Your task to perform on an android device: turn off location Image 0: 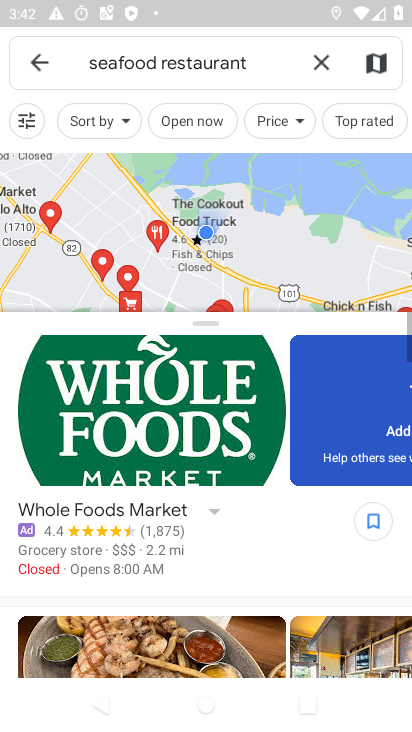
Step 0: press home button
Your task to perform on an android device: turn off location Image 1: 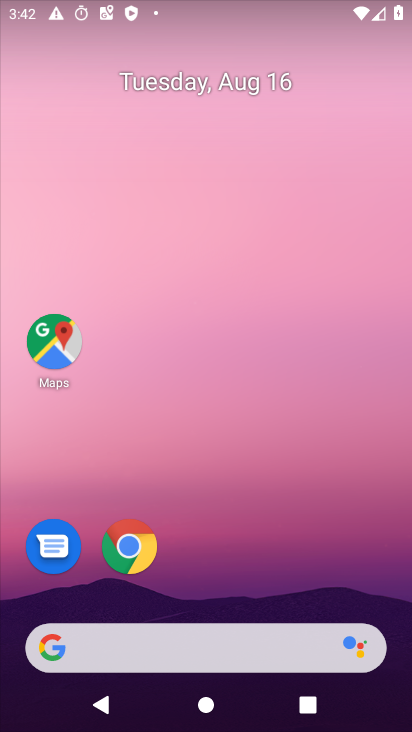
Step 1: drag from (311, 556) to (336, 156)
Your task to perform on an android device: turn off location Image 2: 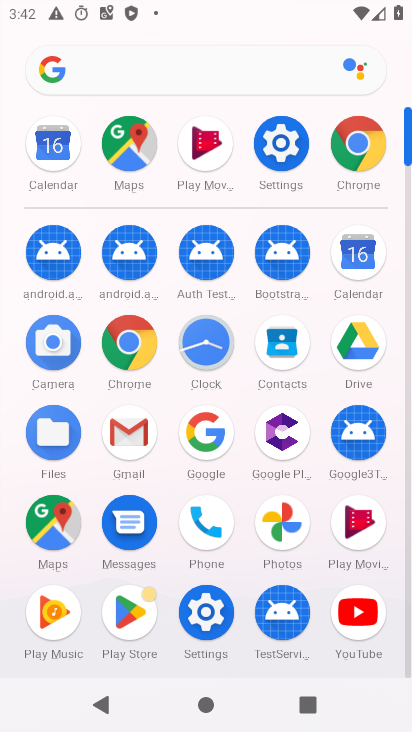
Step 2: click (290, 154)
Your task to perform on an android device: turn off location Image 3: 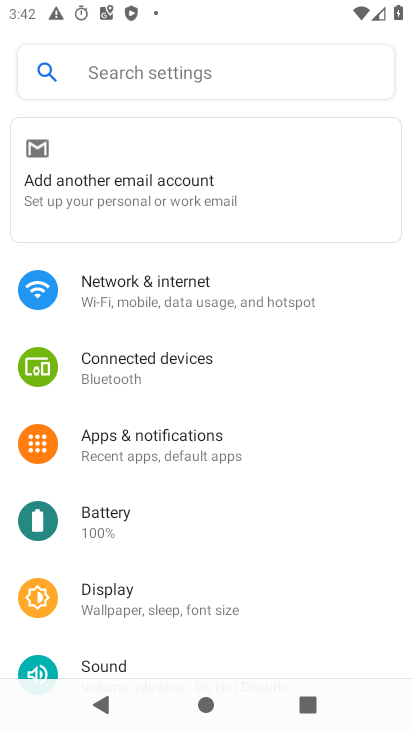
Step 3: drag from (319, 489) to (347, 316)
Your task to perform on an android device: turn off location Image 4: 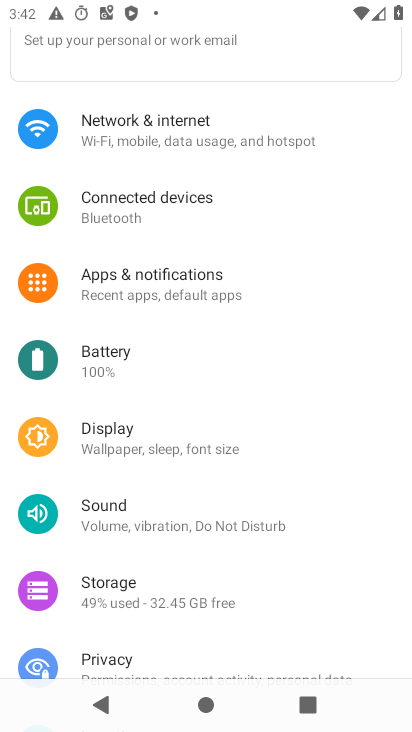
Step 4: drag from (343, 543) to (349, 358)
Your task to perform on an android device: turn off location Image 5: 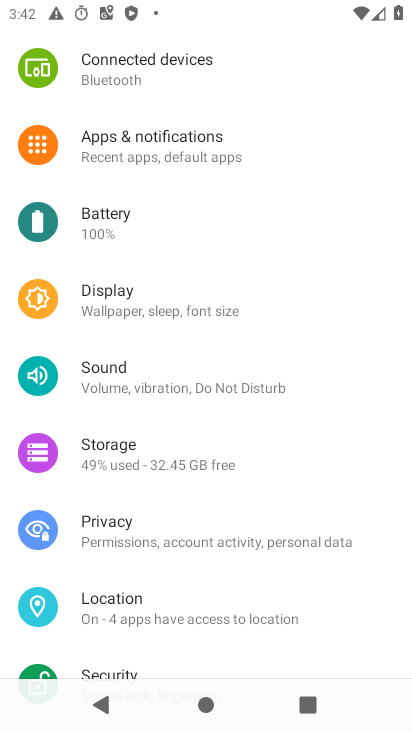
Step 5: drag from (354, 574) to (345, 361)
Your task to perform on an android device: turn off location Image 6: 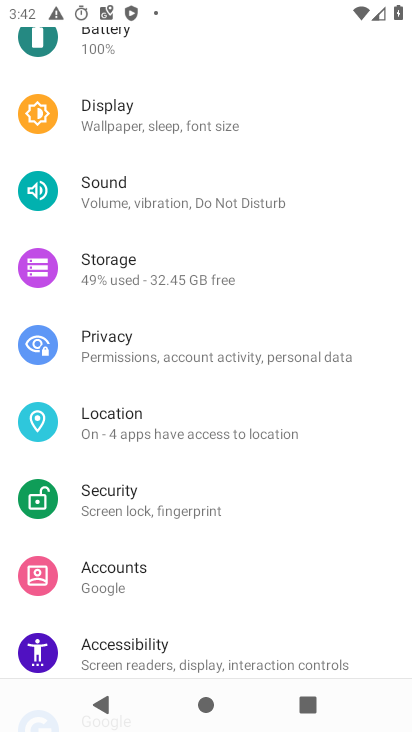
Step 6: click (283, 427)
Your task to perform on an android device: turn off location Image 7: 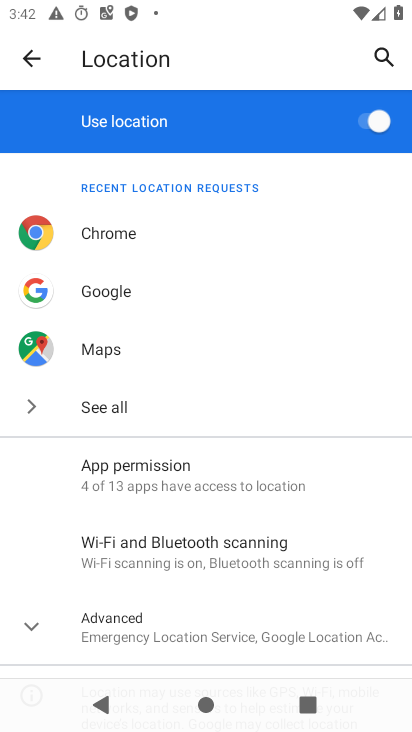
Step 7: click (379, 126)
Your task to perform on an android device: turn off location Image 8: 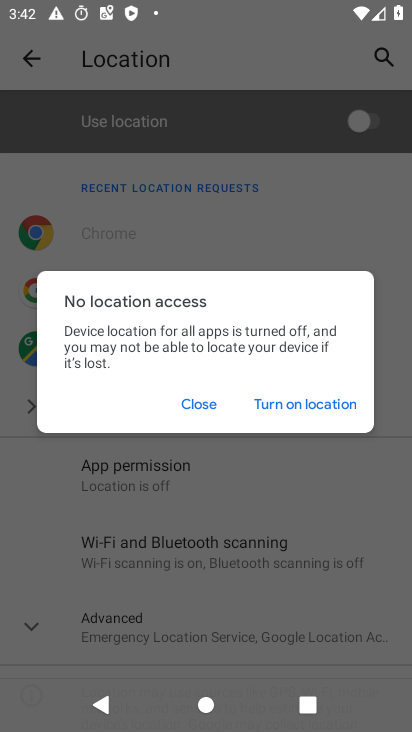
Step 8: task complete